Your task to perform on an android device: open app "DoorDash - Dasher" (install if not already installed) and go to login screen Image 0: 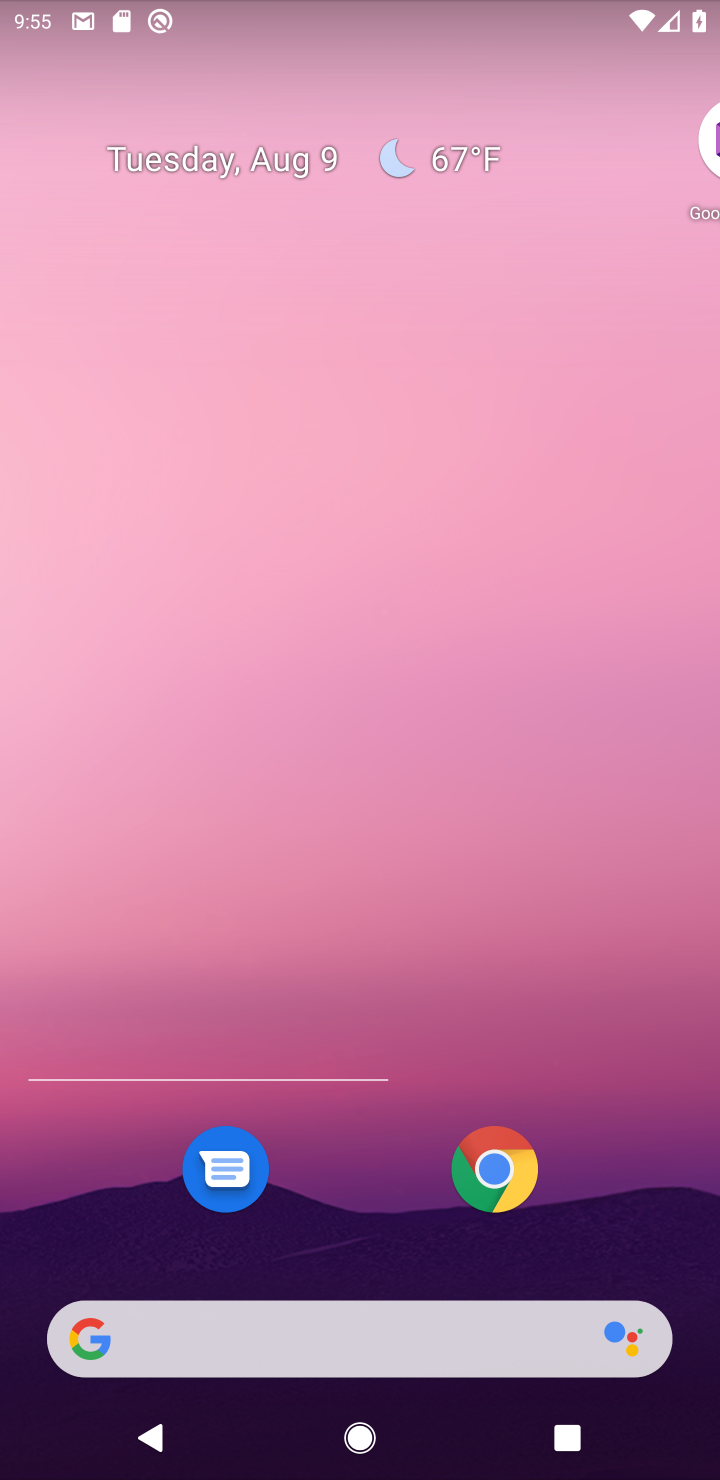
Step 0: press home button
Your task to perform on an android device: open app "DoorDash - Dasher" (install if not already installed) and go to login screen Image 1: 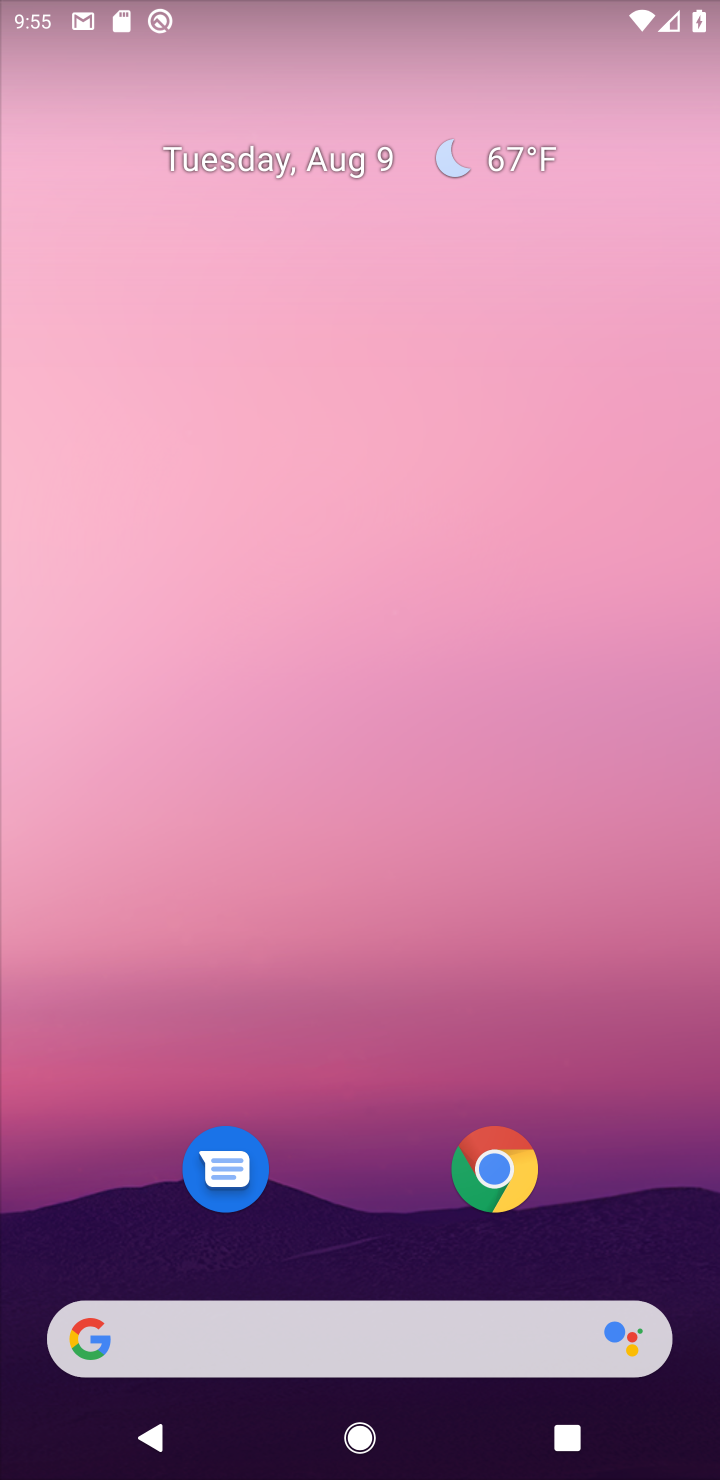
Step 1: drag from (420, 1041) to (456, 127)
Your task to perform on an android device: open app "DoorDash - Dasher" (install if not already installed) and go to login screen Image 2: 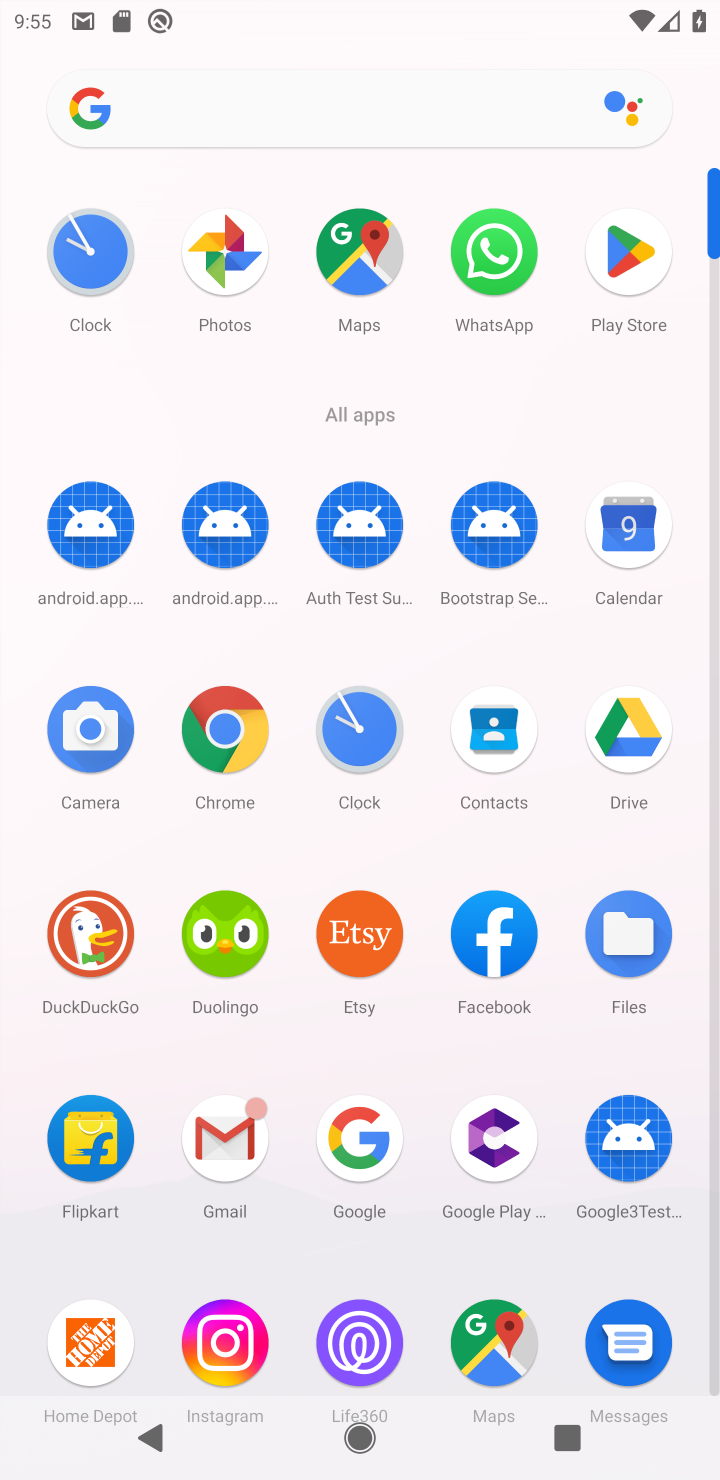
Step 2: click (636, 248)
Your task to perform on an android device: open app "DoorDash - Dasher" (install if not already installed) and go to login screen Image 3: 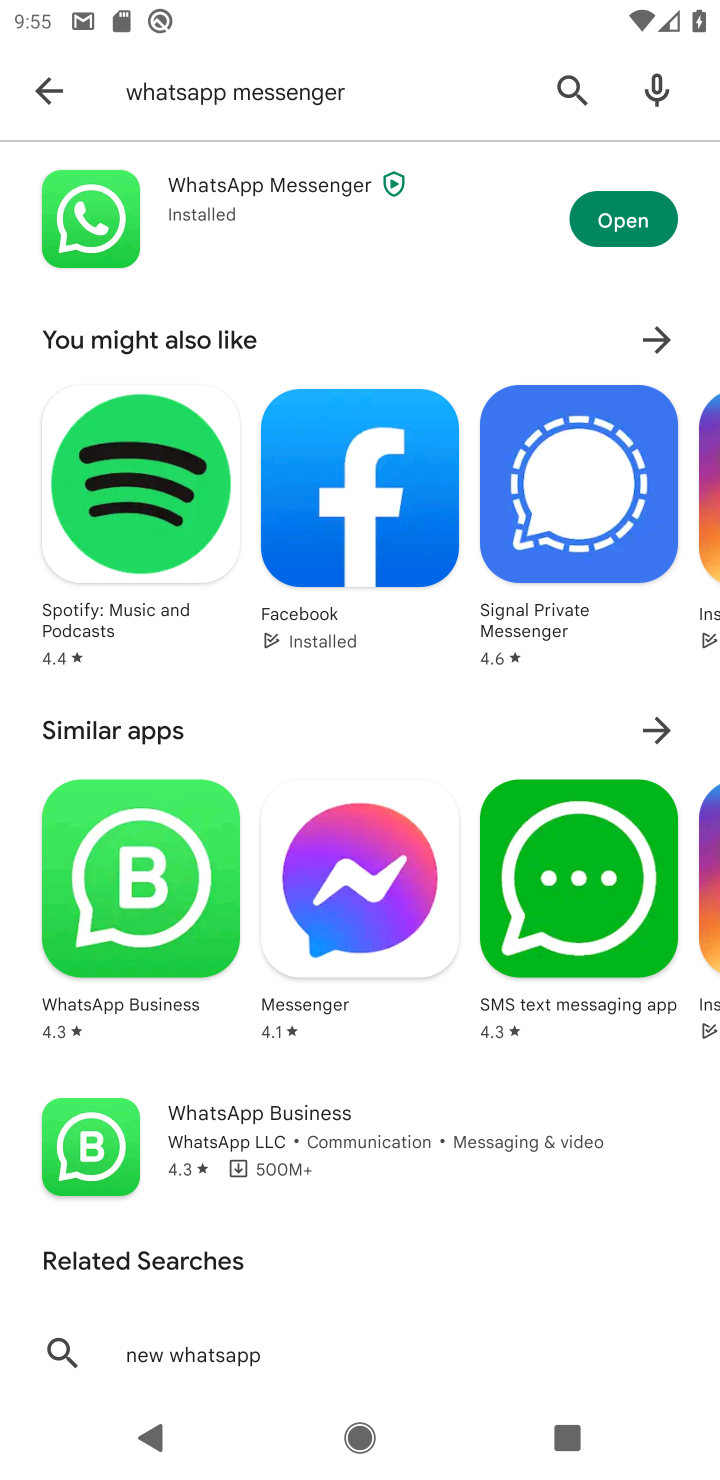
Step 3: click (571, 74)
Your task to perform on an android device: open app "DoorDash - Dasher" (install if not already installed) and go to login screen Image 4: 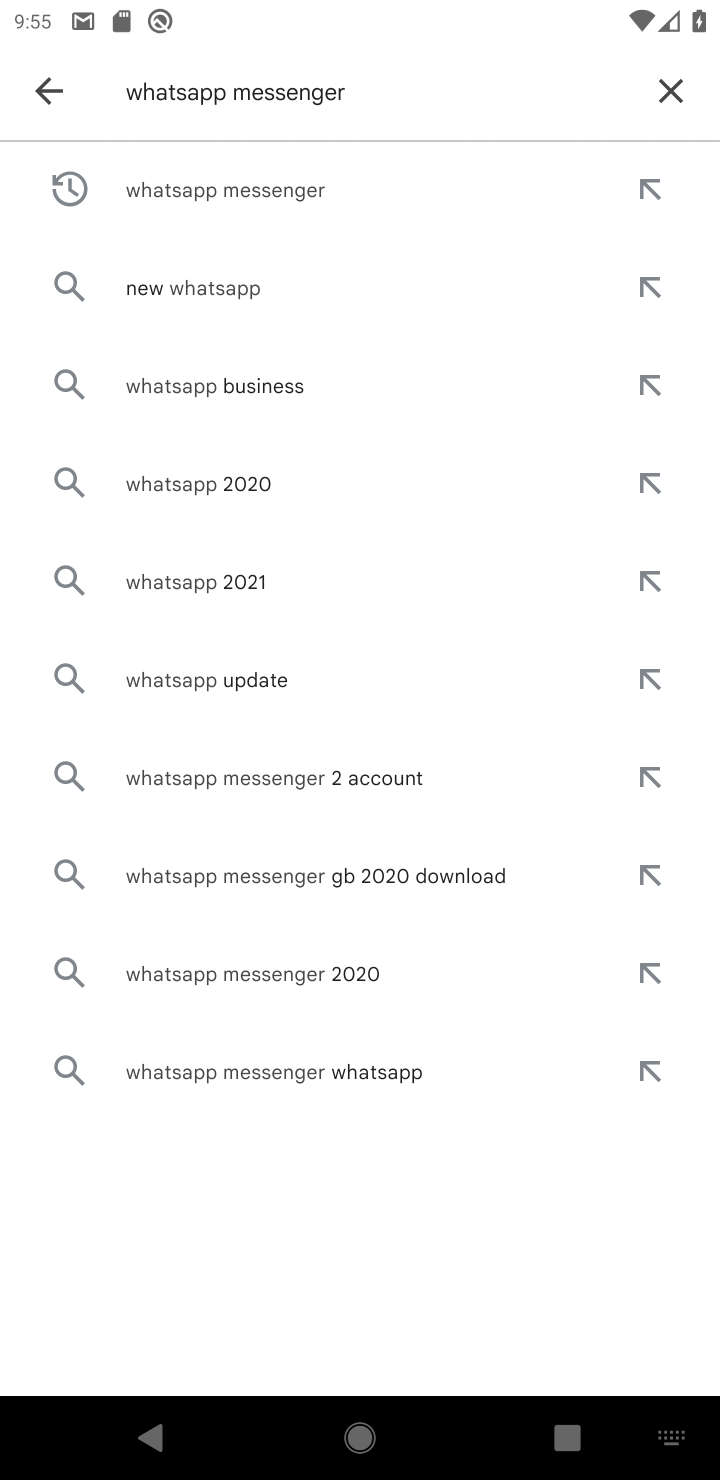
Step 4: click (663, 91)
Your task to perform on an android device: open app "DoorDash - Dasher" (install if not already installed) and go to login screen Image 5: 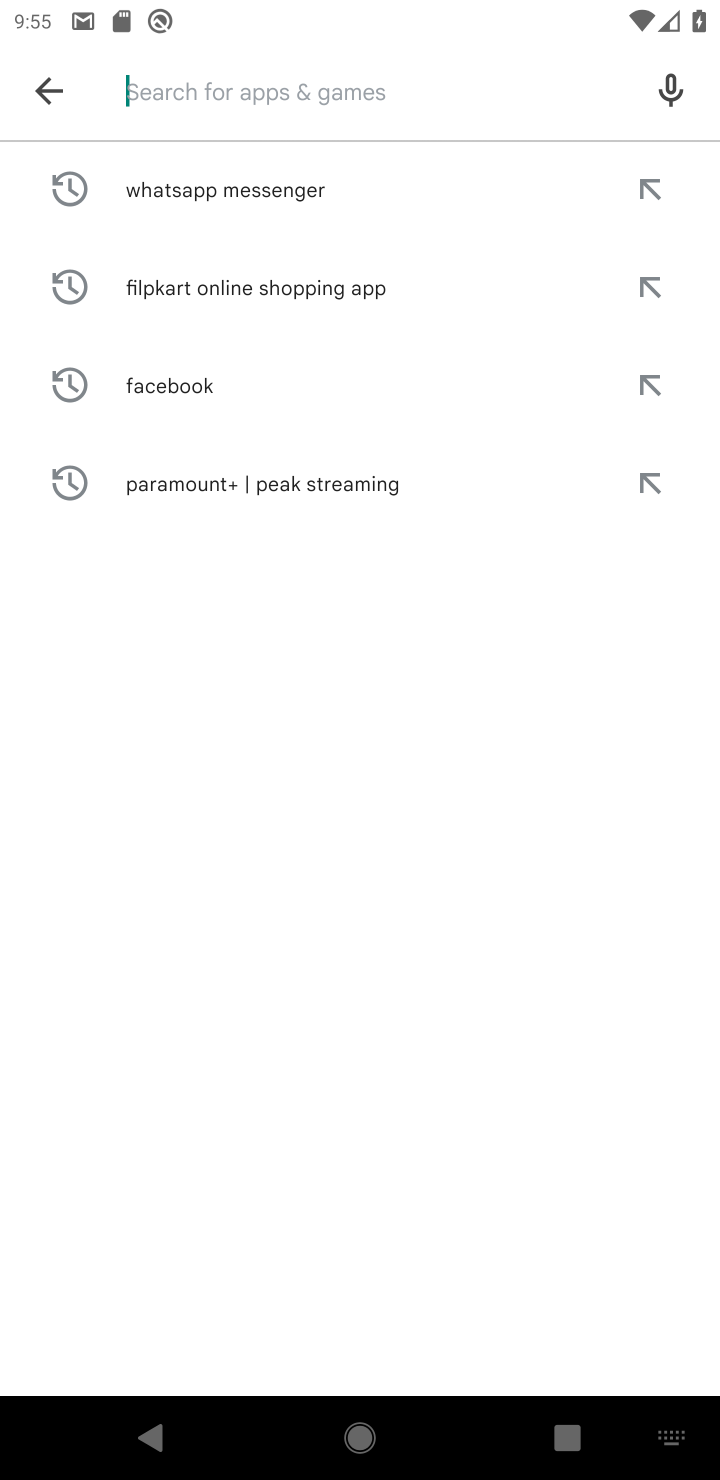
Step 5: type "DoorDash - Dasher"
Your task to perform on an android device: open app "DoorDash - Dasher" (install if not already installed) and go to login screen Image 6: 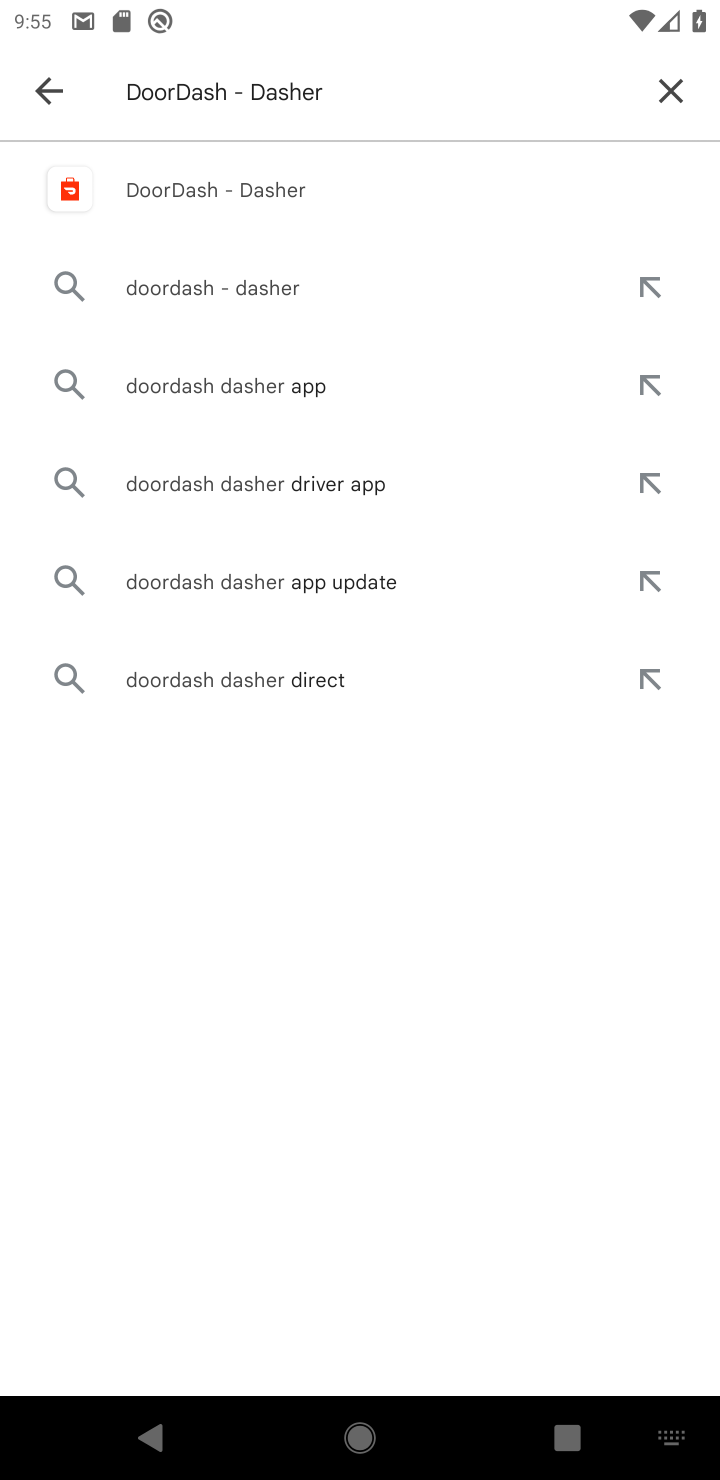
Step 6: click (312, 189)
Your task to perform on an android device: open app "DoorDash - Dasher" (install if not already installed) and go to login screen Image 7: 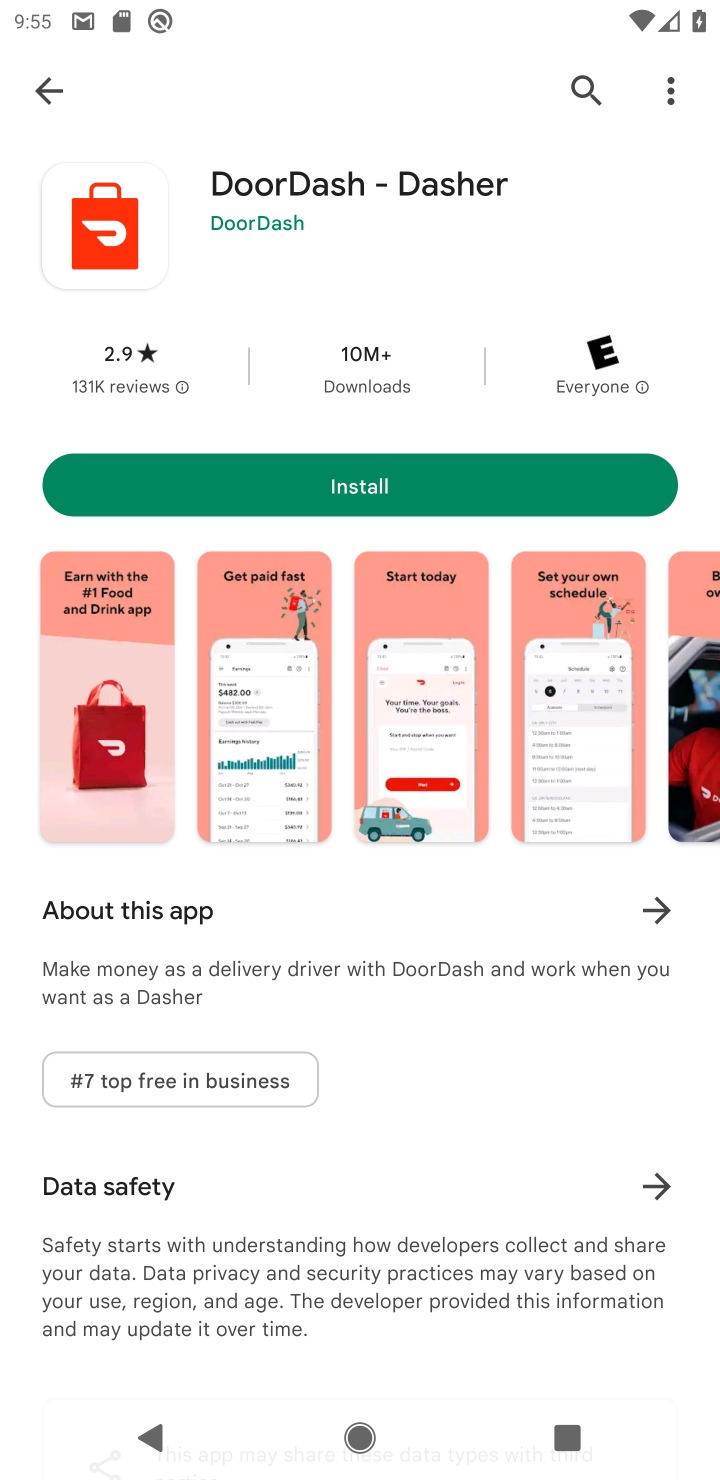
Step 7: click (437, 487)
Your task to perform on an android device: open app "DoorDash - Dasher" (install if not already installed) and go to login screen Image 8: 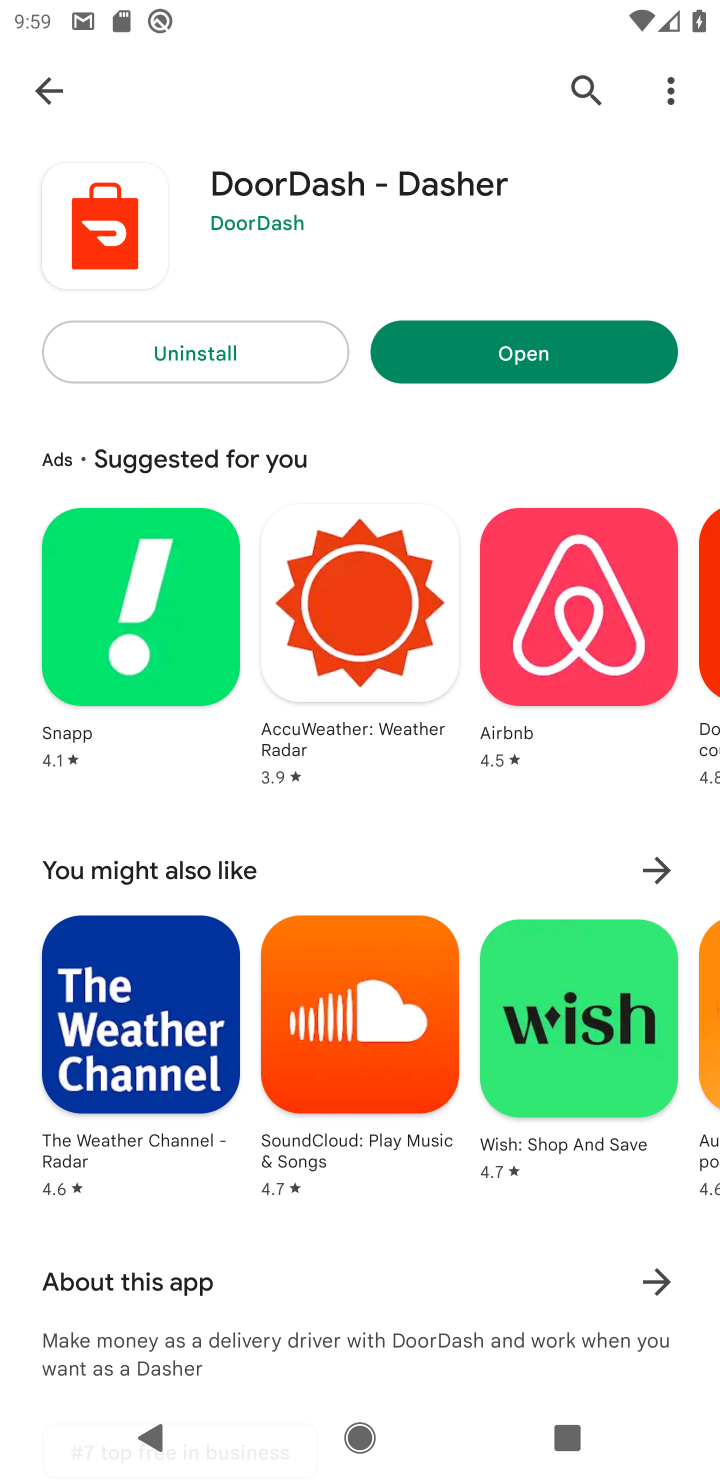
Step 8: click (560, 340)
Your task to perform on an android device: open app "DoorDash - Dasher" (install if not already installed) and go to login screen Image 9: 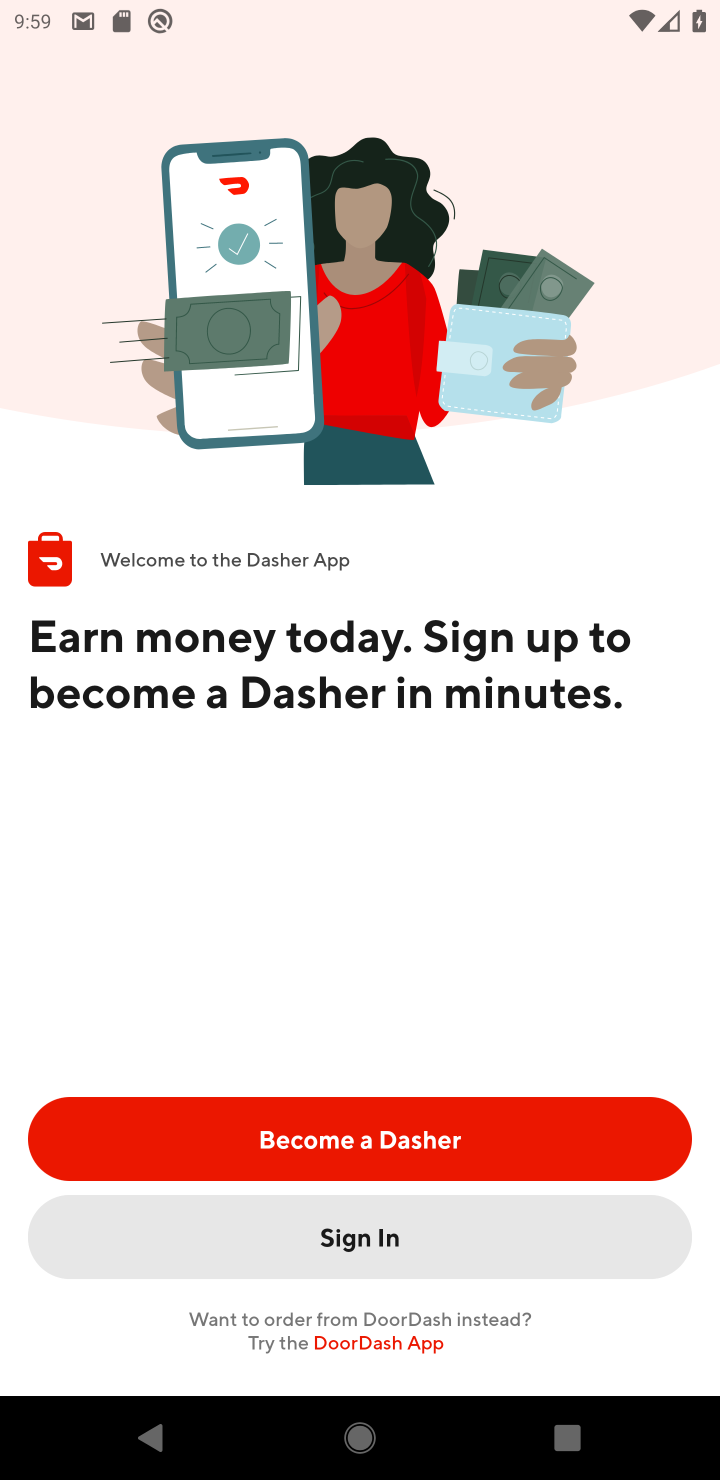
Step 9: task complete